Your task to perform on an android device: Toggle the flashlight Image 0: 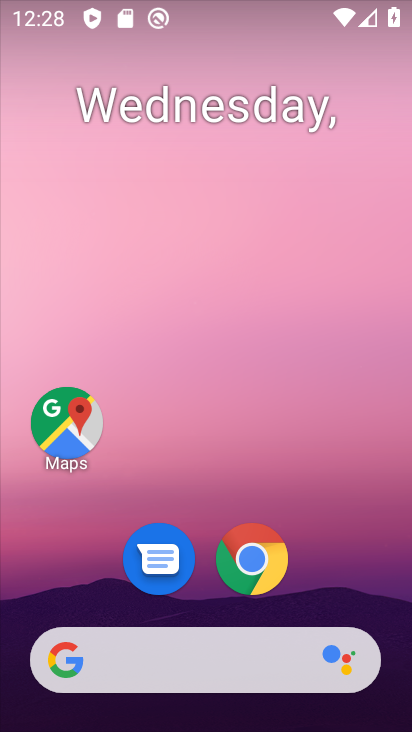
Step 0: press home button
Your task to perform on an android device: Toggle the flashlight Image 1: 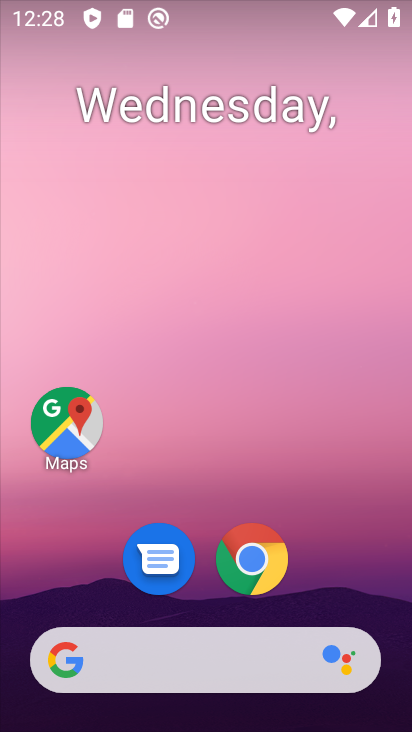
Step 1: drag from (316, 548) to (256, 106)
Your task to perform on an android device: Toggle the flashlight Image 2: 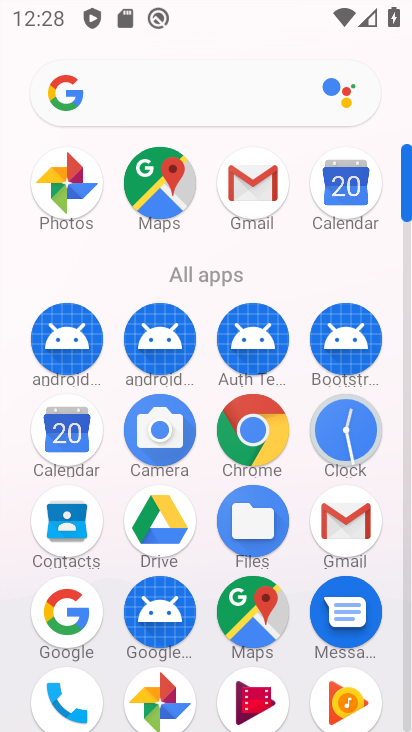
Step 2: drag from (204, 622) to (219, 400)
Your task to perform on an android device: Toggle the flashlight Image 3: 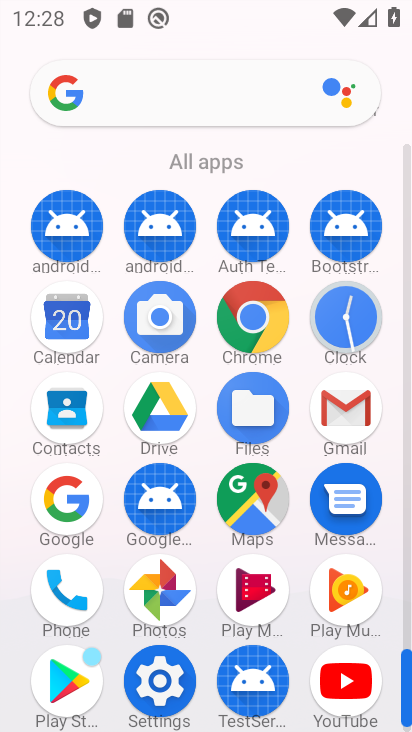
Step 3: click (169, 688)
Your task to perform on an android device: Toggle the flashlight Image 4: 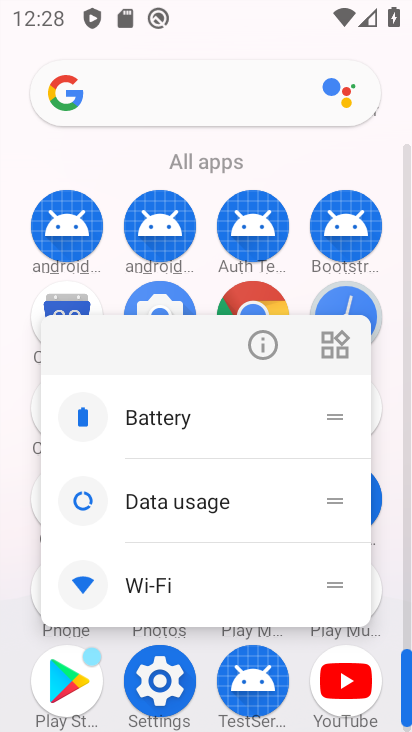
Step 4: click (168, 687)
Your task to perform on an android device: Toggle the flashlight Image 5: 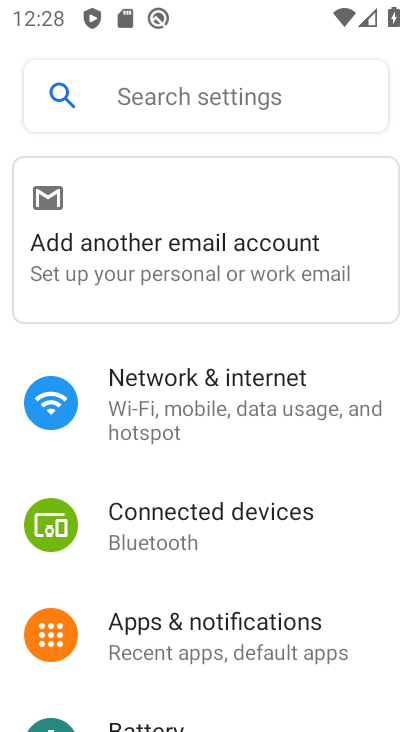
Step 5: click (210, 106)
Your task to perform on an android device: Toggle the flashlight Image 6: 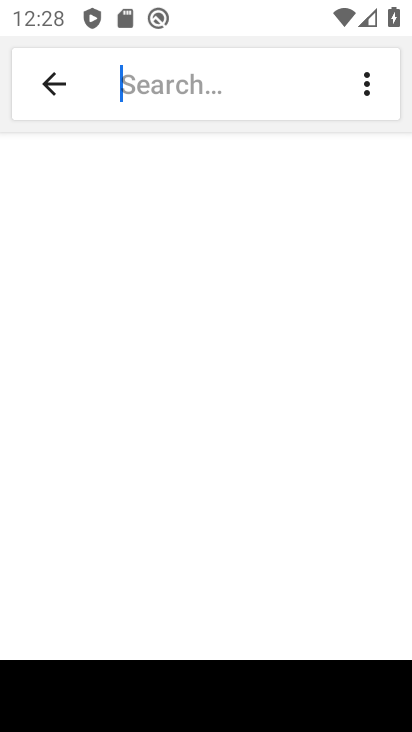
Step 6: type "flashlight"
Your task to perform on an android device: Toggle the flashlight Image 7: 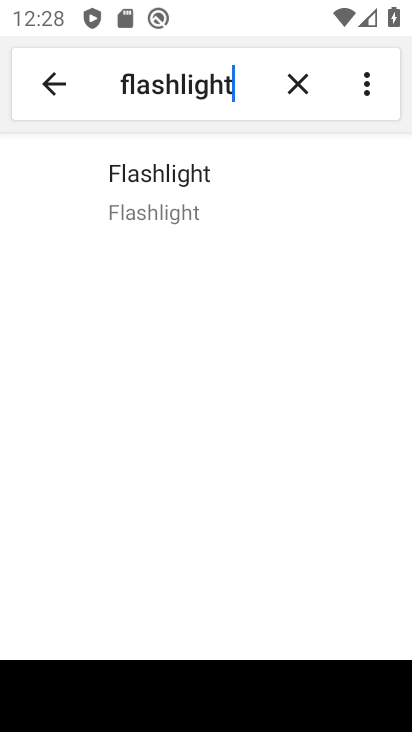
Step 7: click (146, 202)
Your task to perform on an android device: Toggle the flashlight Image 8: 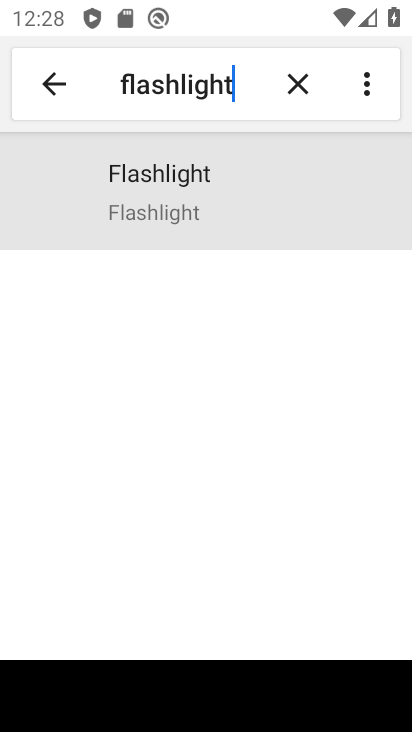
Step 8: click (146, 202)
Your task to perform on an android device: Toggle the flashlight Image 9: 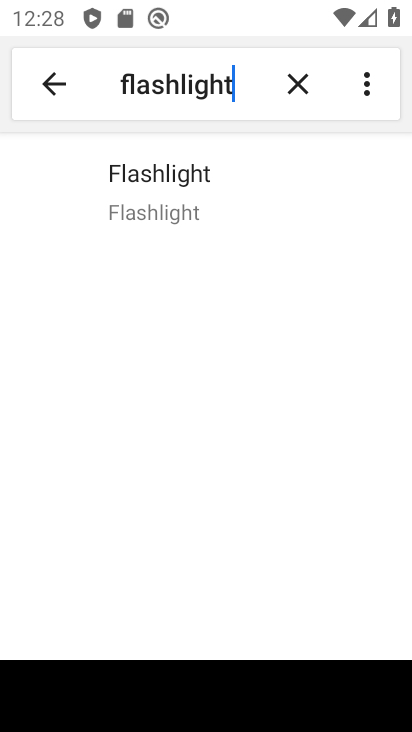
Step 9: click (170, 169)
Your task to perform on an android device: Toggle the flashlight Image 10: 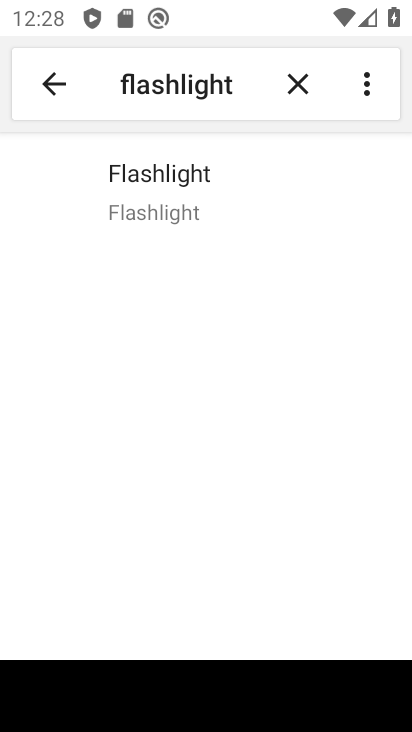
Step 10: task complete